Your task to perform on an android device: Open Chrome and go to settings Image 0: 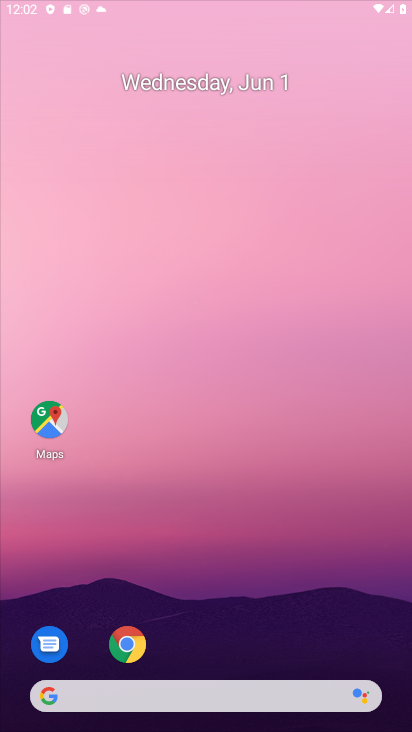
Step 0: press home button
Your task to perform on an android device: Open Chrome and go to settings Image 1: 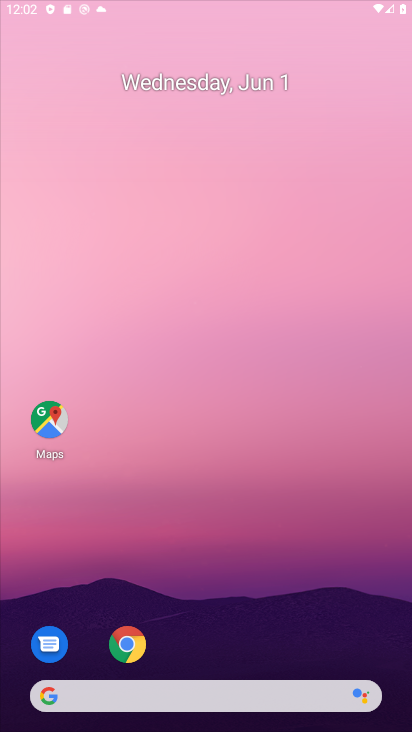
Step 1: click (326, 166)
Your task to perform on an android device: Open Chrome and go to settings Image 2: 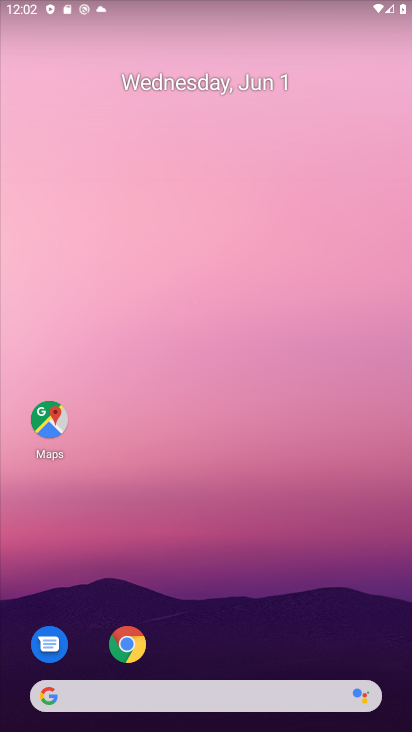
Step 2: drag from (335, 504) to (360, 202)
Your task to perform on an android device: Open Chrome and go to settings Image 3: 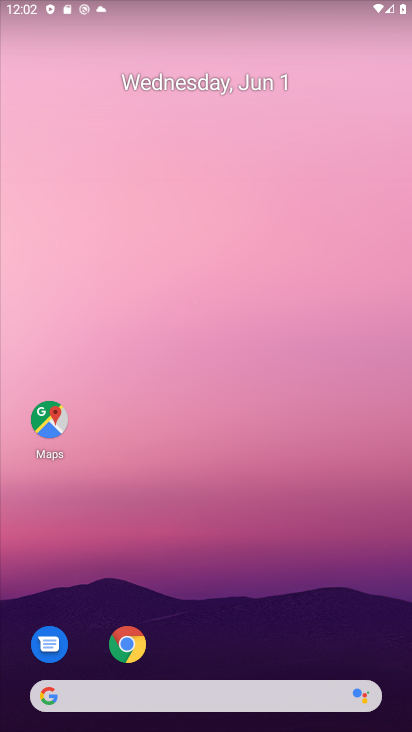
Step 3: drag from (300, 647) to (329, 183)
Your task to perform on an android device: Open Chrome and go to settings Image 4: 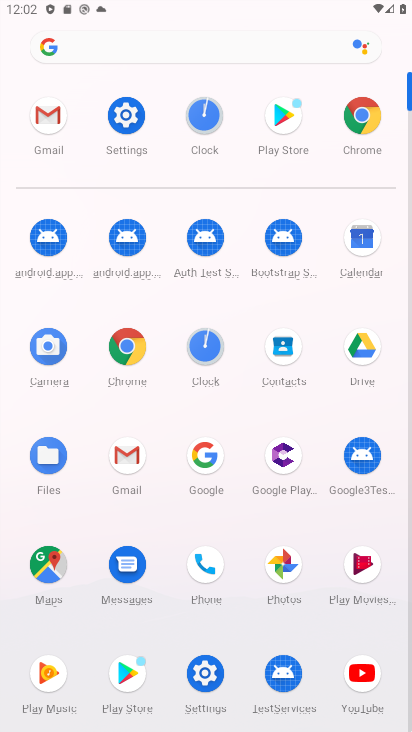
Step 4: click (122, 347)
Your task to perform on an android device: Open Chrome and go to settings Image 5: 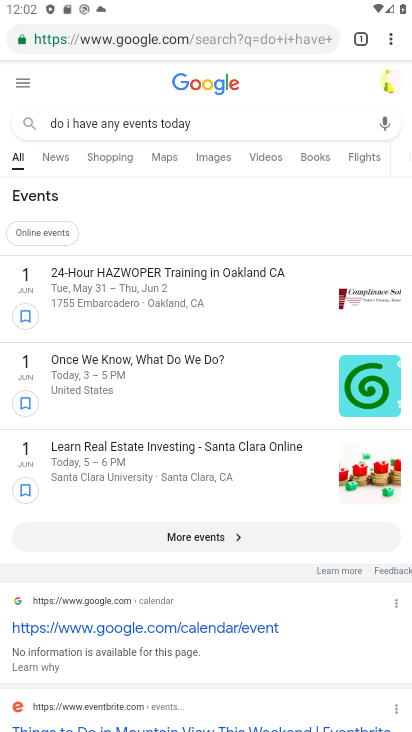
Step 5: task complete